Your task to perform on an android device: Open settings Image 0: 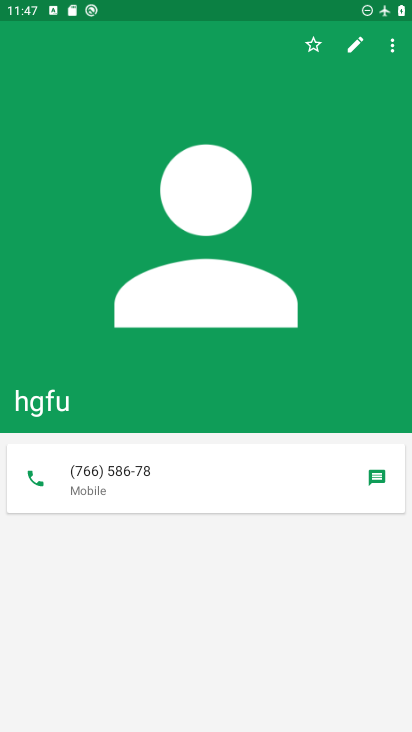
Step 0: press home button
Your task to perform on an android device: Open settings Image 1: 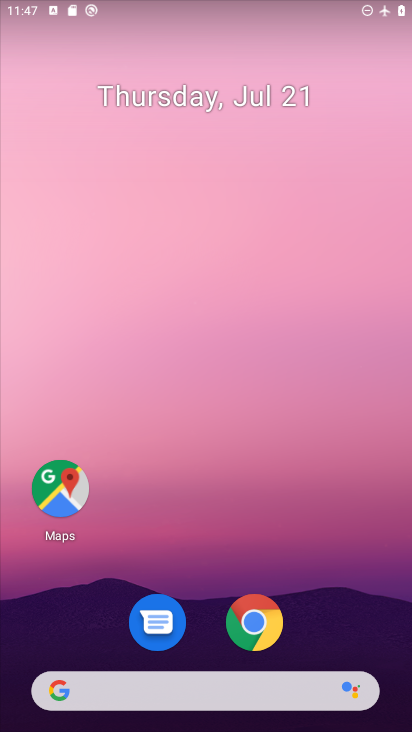
Step 1: drag from (242, 699) to (294, 44)
Your task to perform on an android device: Open settings Image 2: 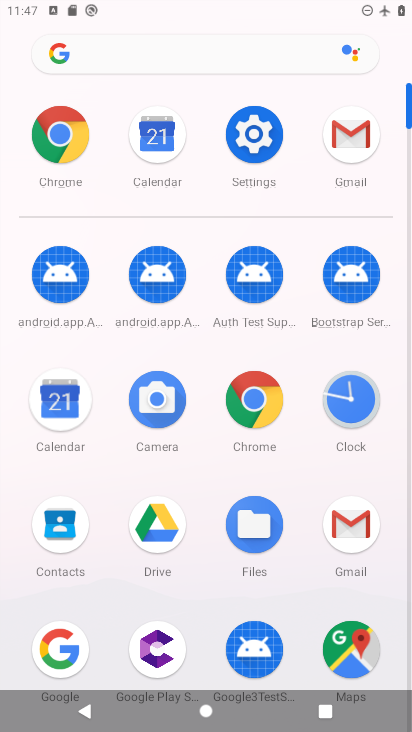
Step 2: click (260, 148)
Your task to perform on an android device: Open settings Image 3: 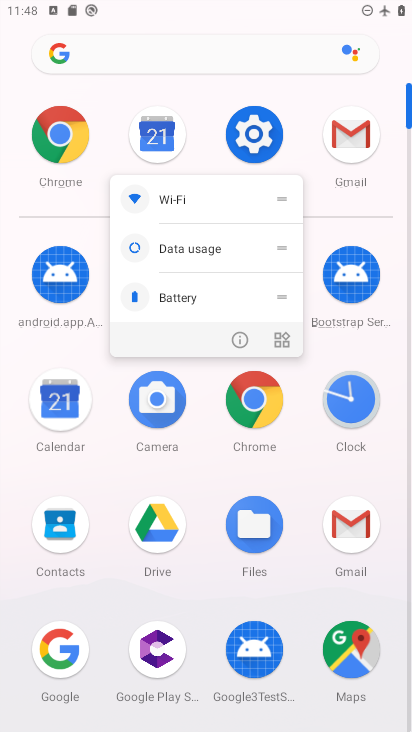
Step 3: click (260, 148)
Your task to perform on an android device: Open settings Image 4: 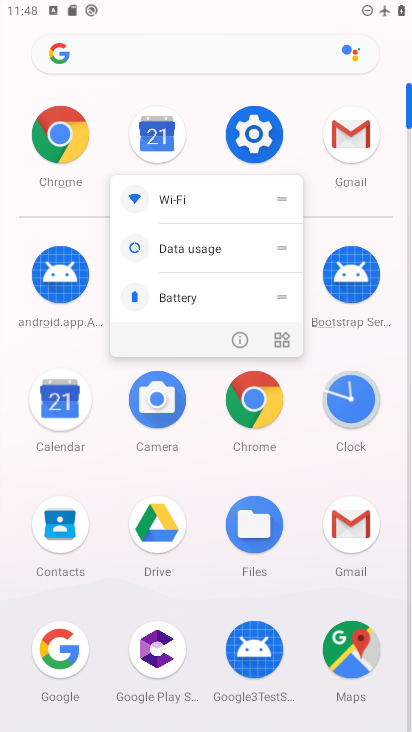
Step 4: click (260, 148)
Your task to perform on an android device: Open settings Image 5: 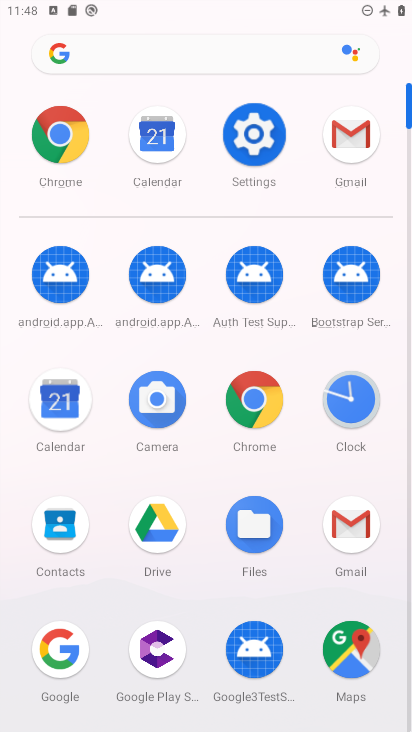
Step 5: click (260, 148)
Your task to perform on an android device: Open settings Image 6: 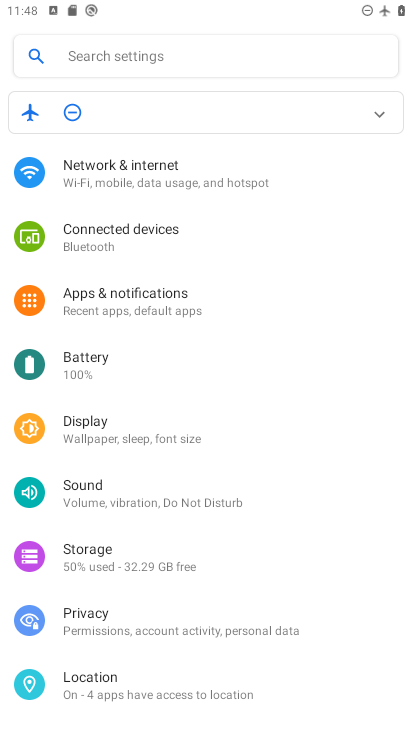
Step 6: task complete